Your task to perform on an android device: Show the shopping cart on amazon. Search for logitech g pro on amazon, select the first entry, add it to the cart, then select checkout. Image 0: 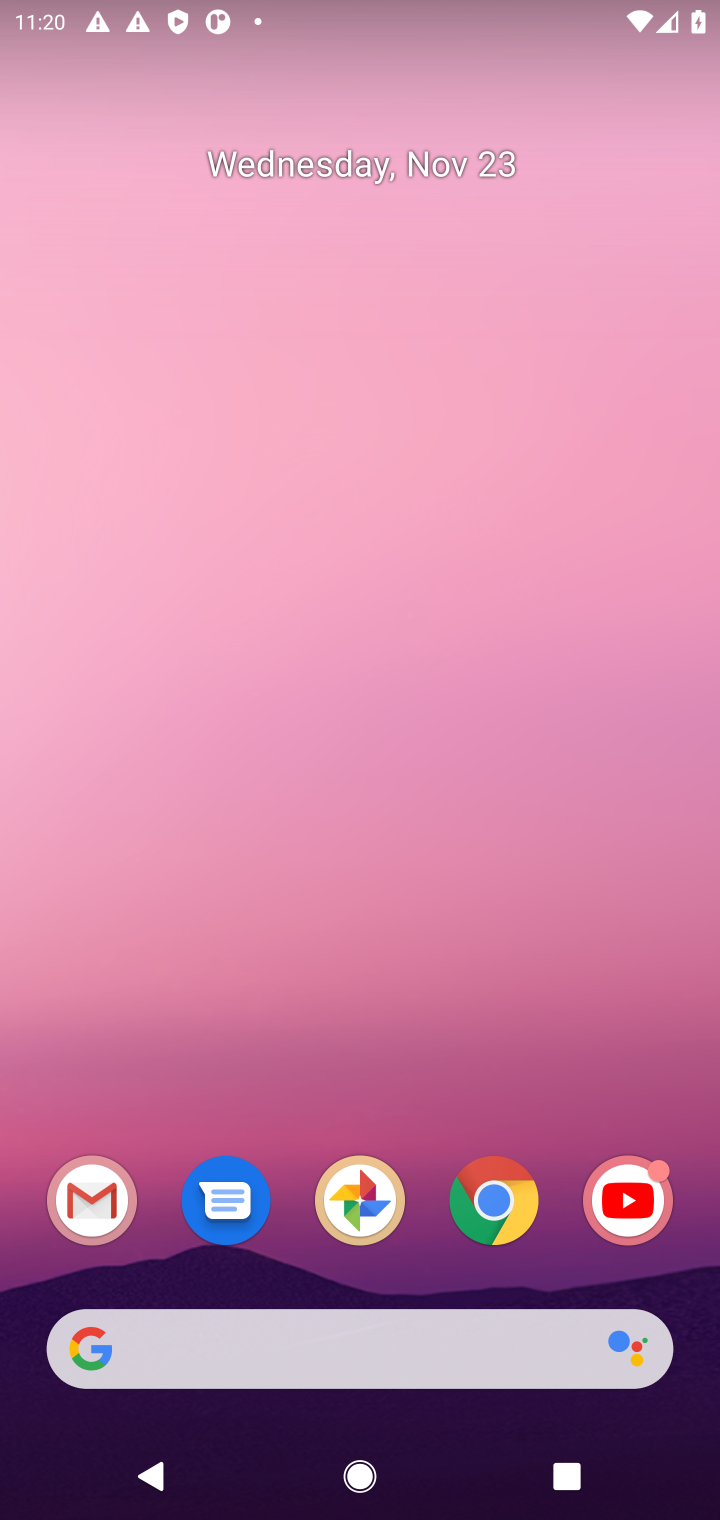
Step 0: press home button
Your task to perform on an android device: Show the shopping cart on amazon. Search for logitech g pro on amazon, select the first entry, add it to the cart, then select checkout. Image 1: 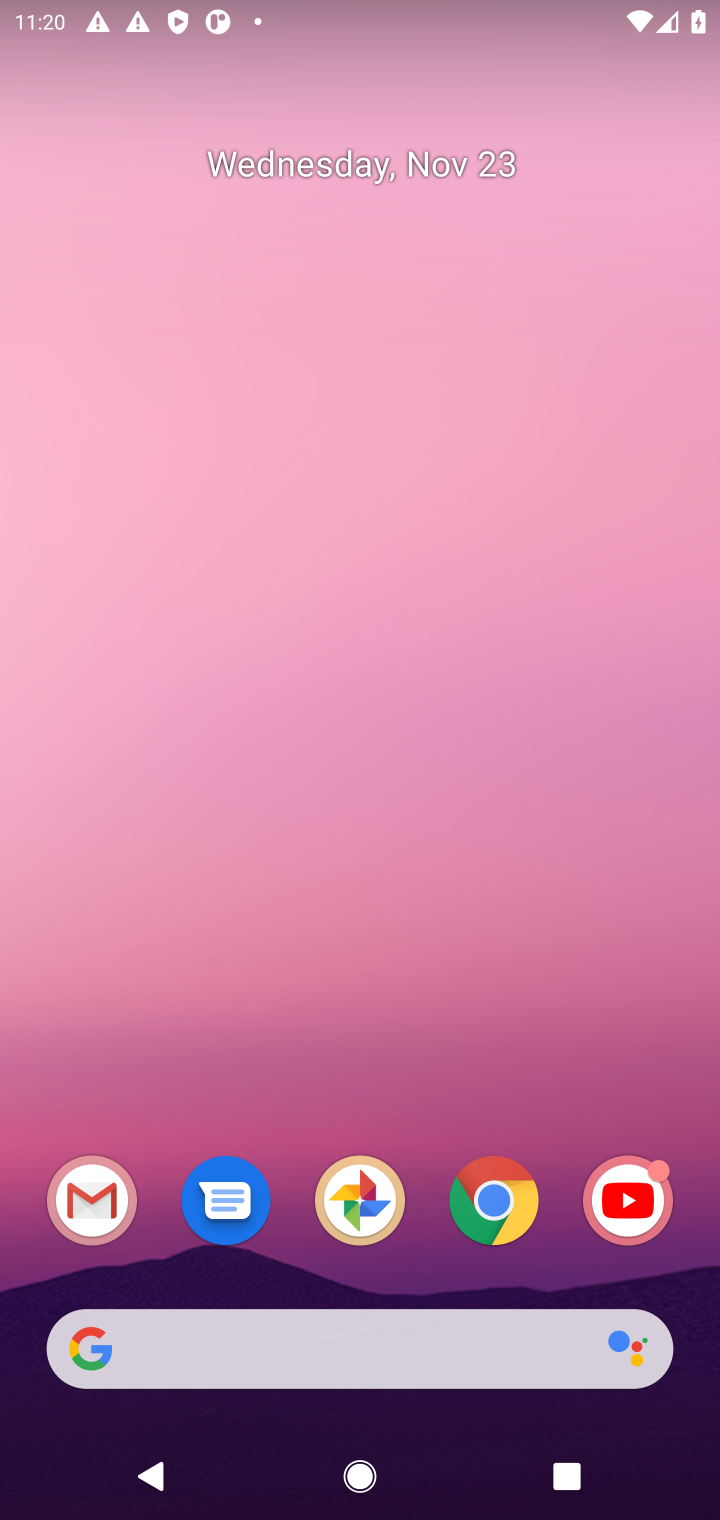
Step 1: click (373, 1370)
Your task to perform on an android device: Show the shopping cart on amazon. Search for logitech g pro on amazon, select the first entry, add it to the cart, then select checkout. Image 2: 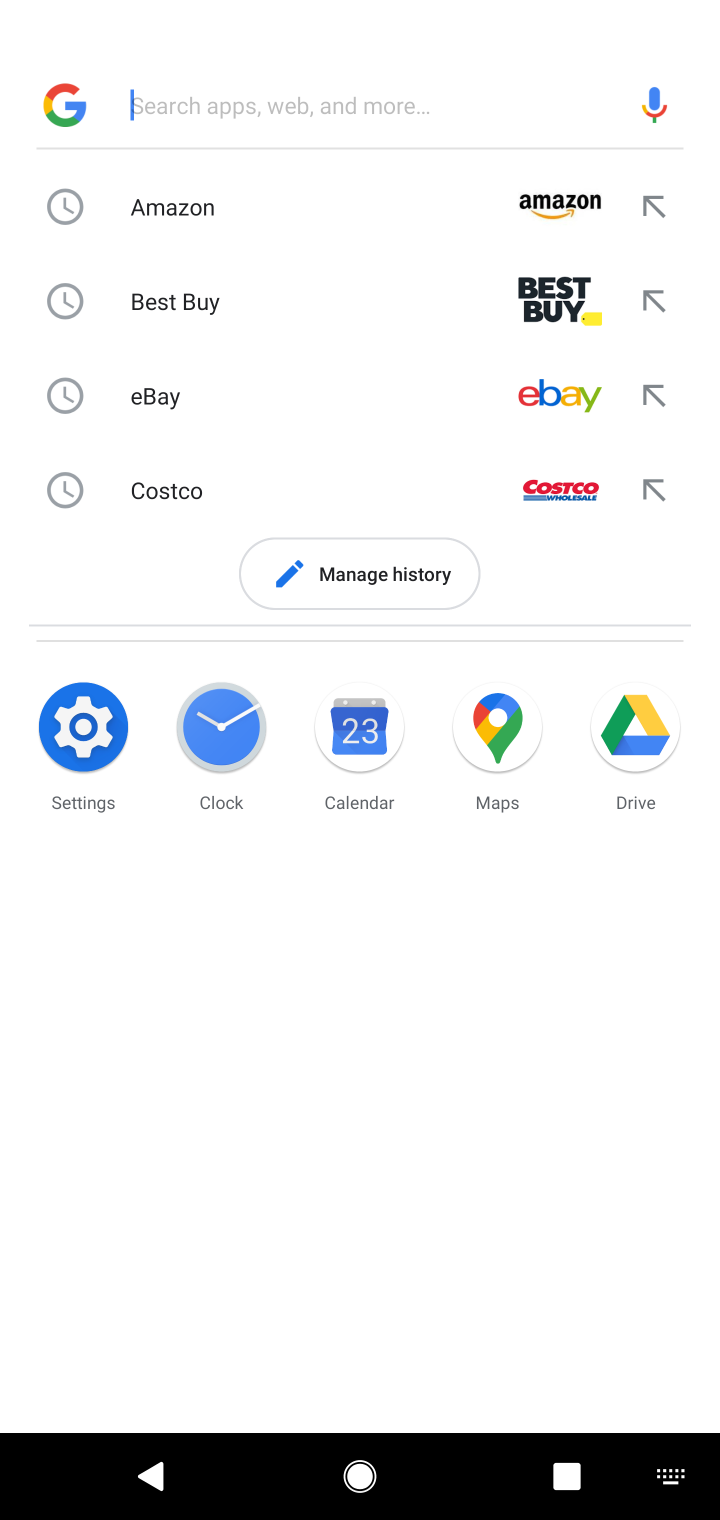
Step 2: type "amazon"
Your task to perform on an android device: Show the shopping cart on amazon. Search for logitech g pro on amazon, select the first entry, add it to the cart, then select checkout. Image 3: 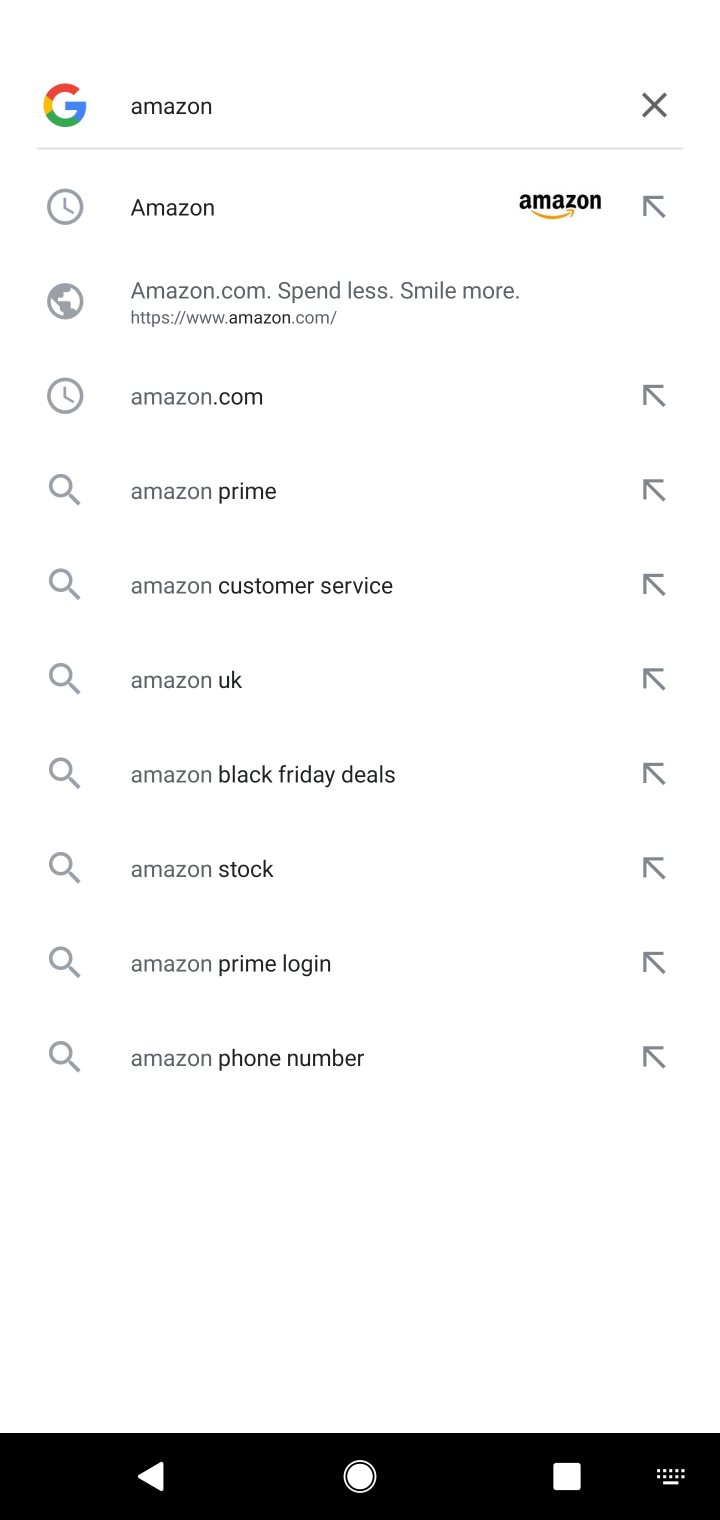
Step 3: click (243, 184)
Your task to perform on an android device: Show the shopping cart on amazon. Search for logitech g pro on amazon, select the first entry, add it to the cart, then select checkout. Image 4: 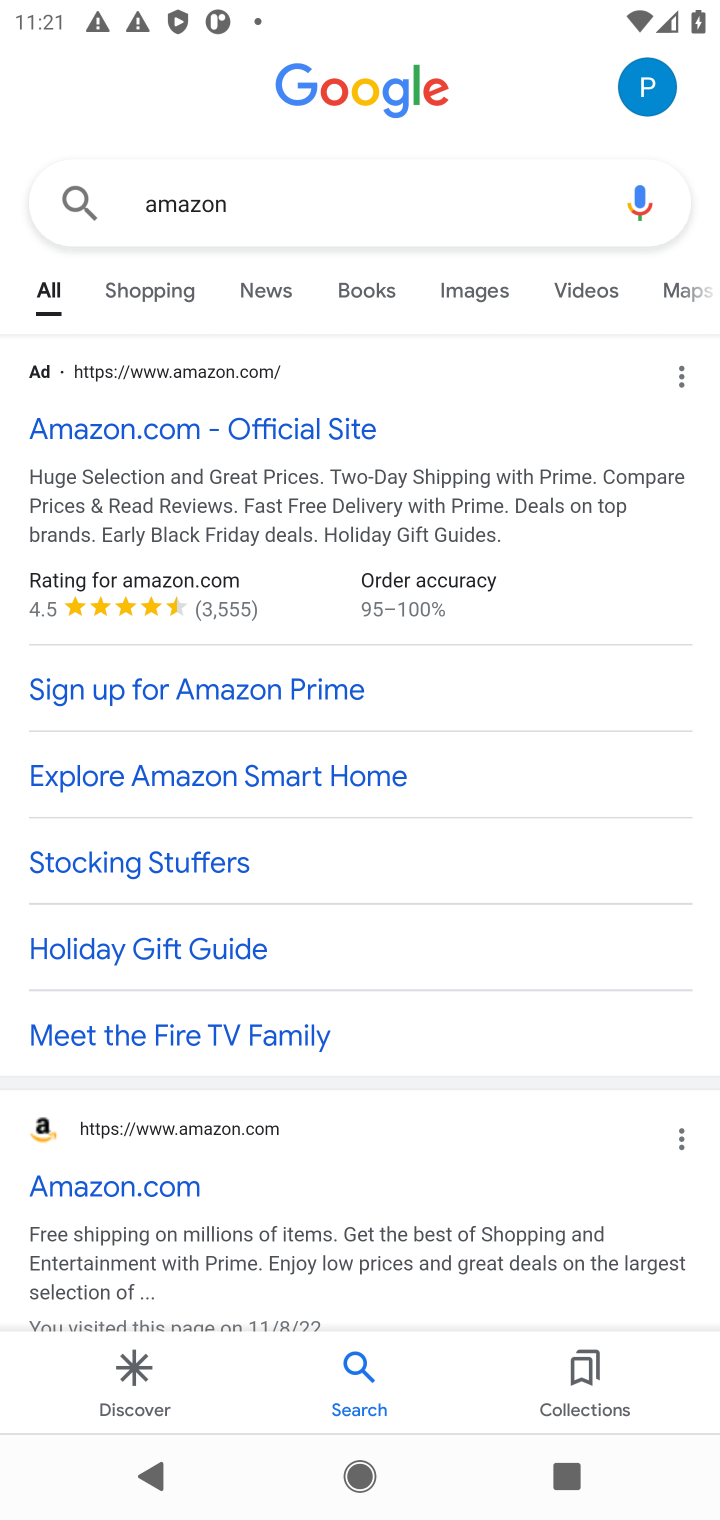
Step 4: click (303, 418)
Your task to perform on an android device: Show the shopping cart on amazon. Search for logitech g pro on amazon, select the first entry, add it to the cart, then select checkout. Image 5: 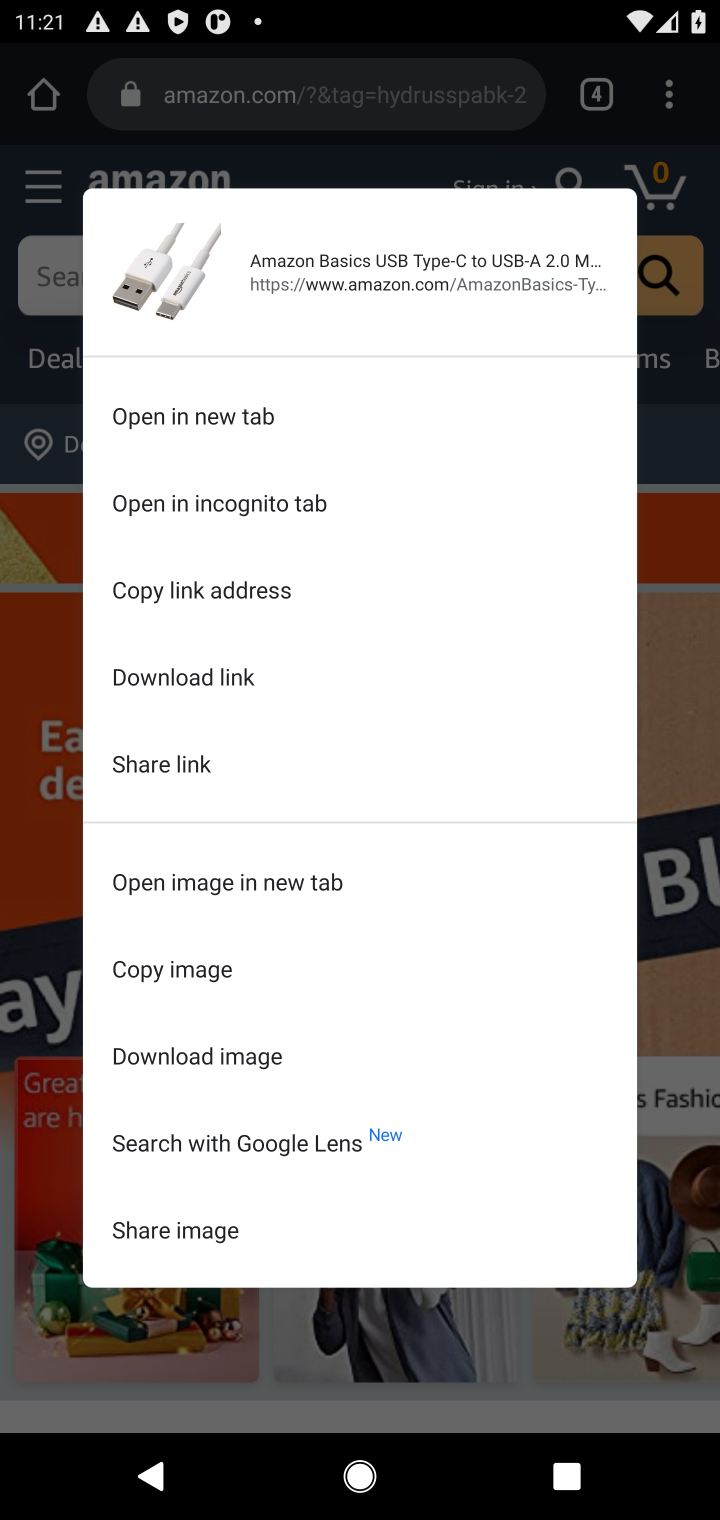
Step 5: click (308, 1345)
Your task to perform on an android device: Show the shopping cart on amazon. Search for logitech g pro on amazon, select the first entry, add it to the cart, then select checkout. Image 6: 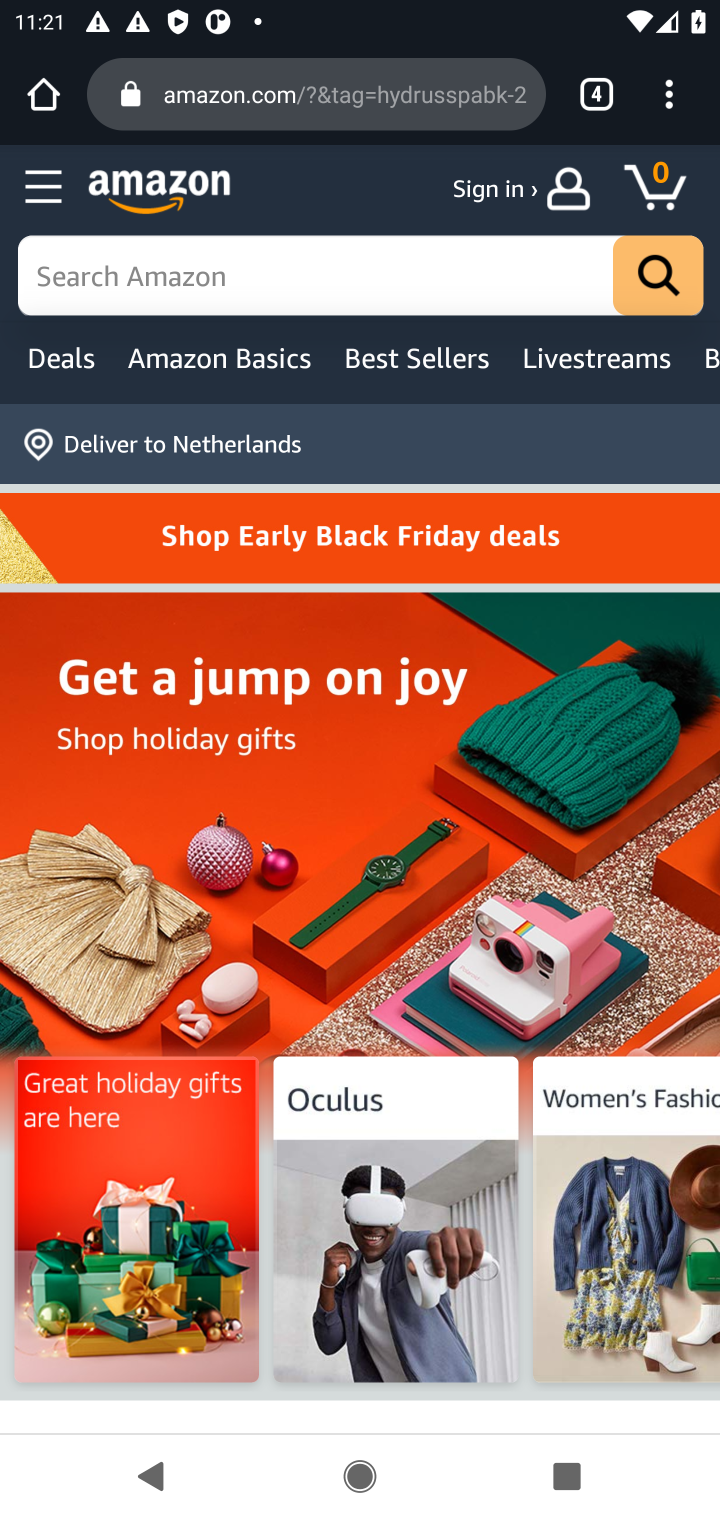
Step 6: click (345, 261)
Your task to perform on an android device: Show the shopping cart on amazon. Search for logitech g pro on amazon, select the first entry, add it to the cart, then select checkout. Image 7: 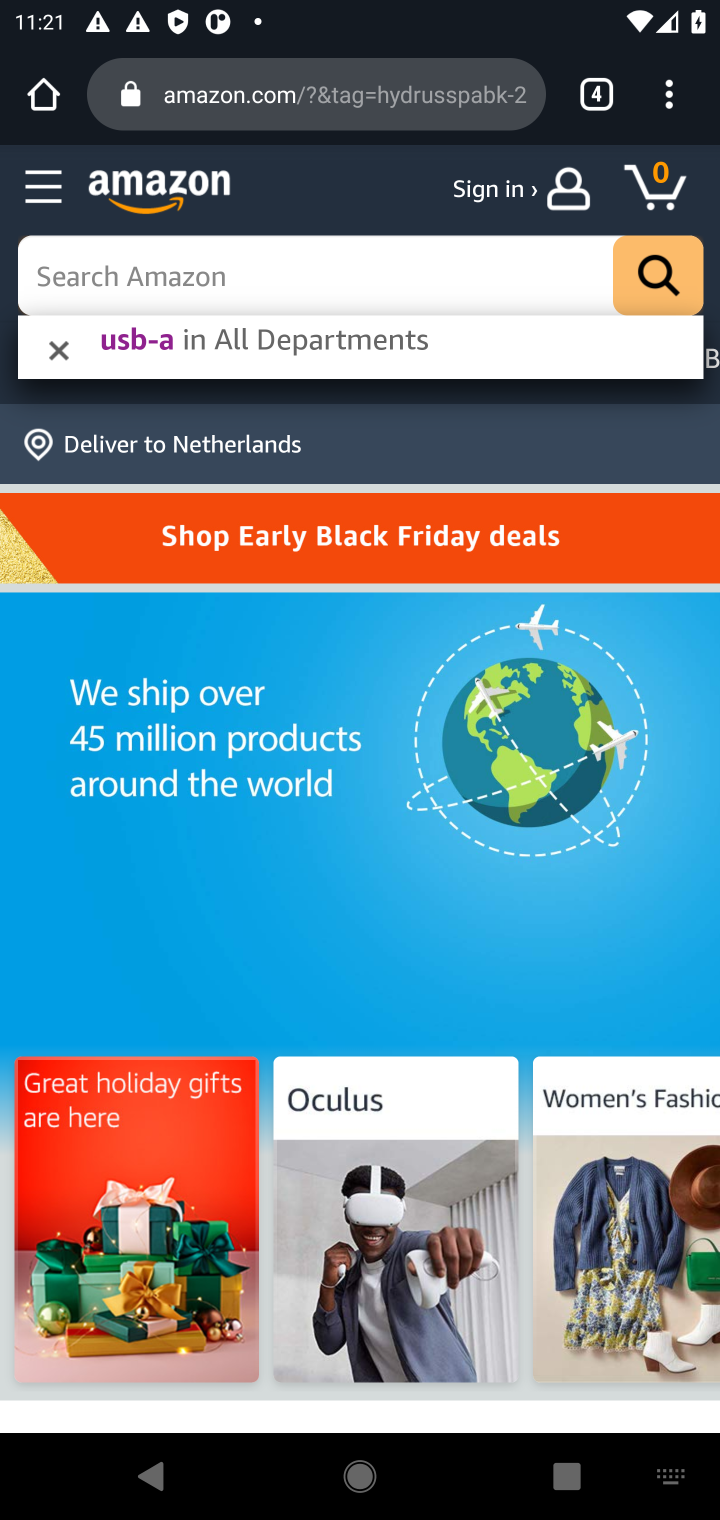
Step 7: type "logitech gpro"
Your task to perform on an android device: Show the shopping cart on amazon. Search for logitech g pro on amazon, select the first entry, add it to the cart, then select checkout. Image 8: 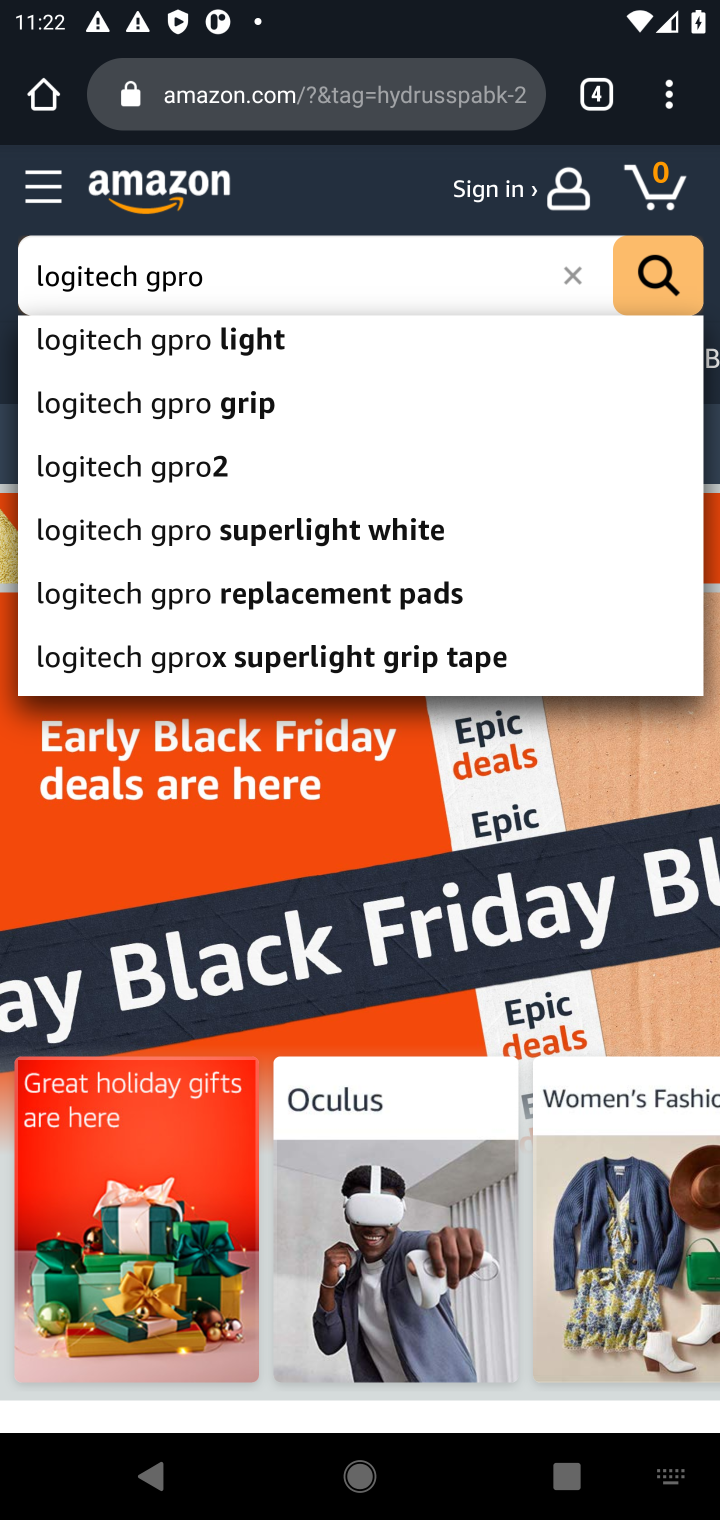
Step 8: click (255, 354)
Your task to perform on an android device: Show the shopping cart on amazon. Search for logitech g pro on amazon, select the first entry, add it to the cart, then select checkout. Image 9: 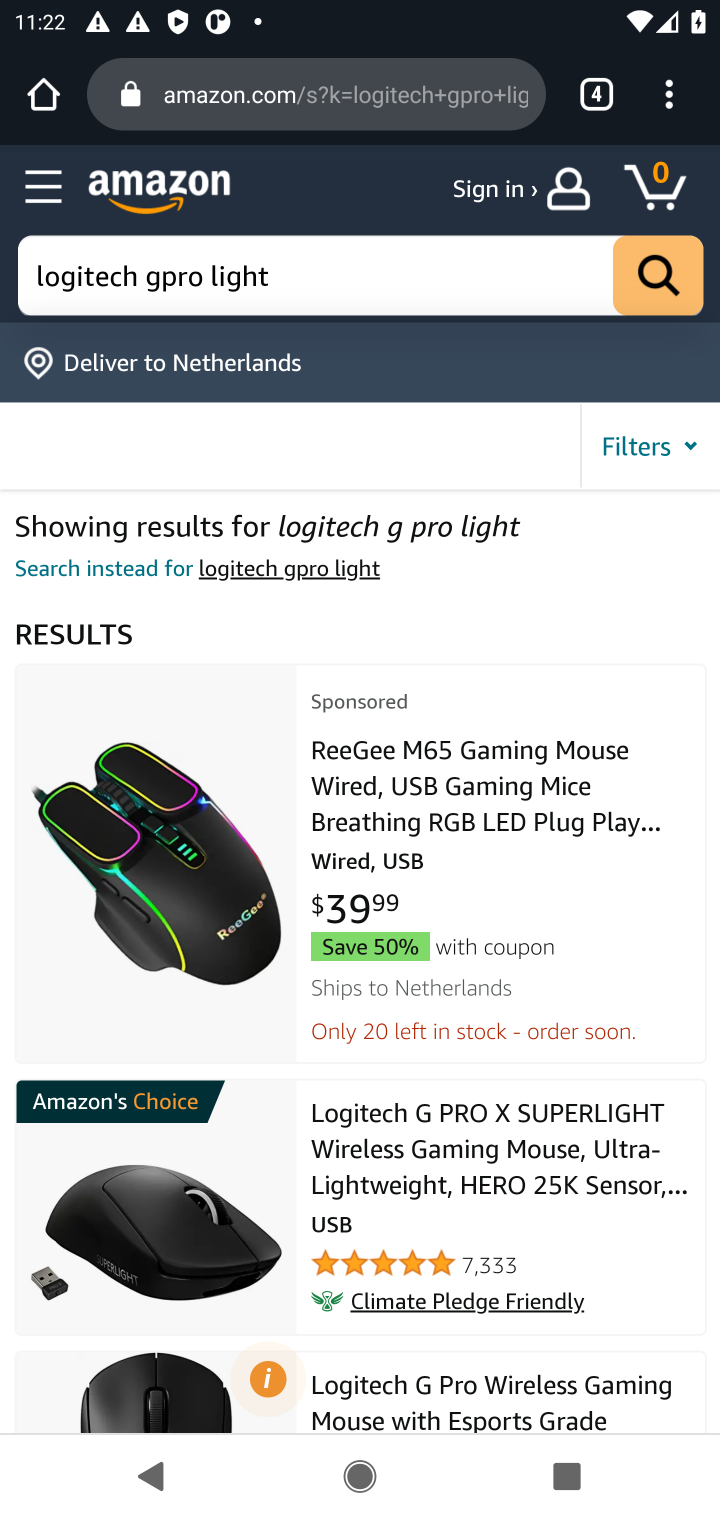
Step 9: click (433, 820)
Your task to perform on an android device: Show the shopping cart on amazon. Search for logitech g pro on amazon, select the first entry, add it to the cart, then select checkout. Image 10: 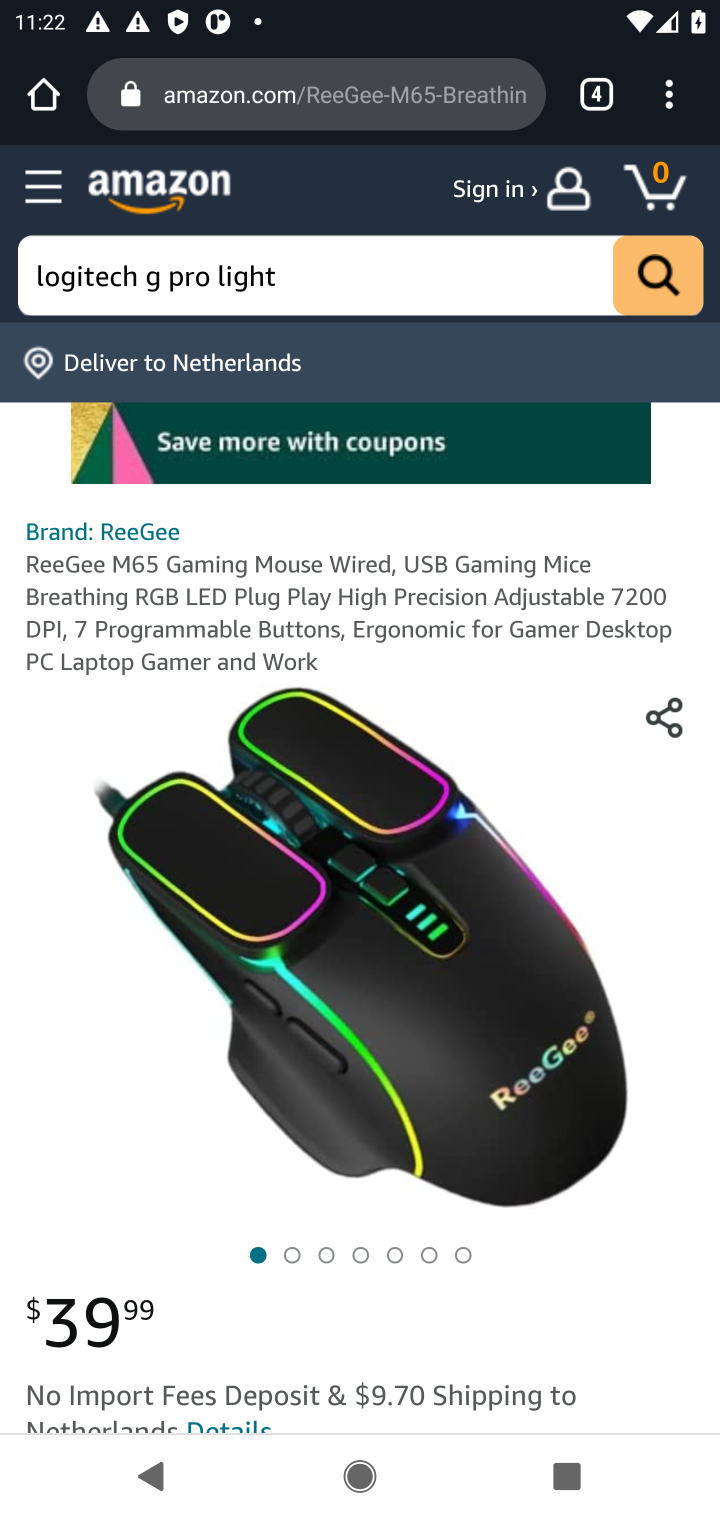
Step 10: drag from (314, 1103) to (614, 366)
Your task to perform on an android device: Show the shopping cart on amazon. Search for logitech g pro on amazon, select the first entry, add it to the cart, then select checkout. Image 11: 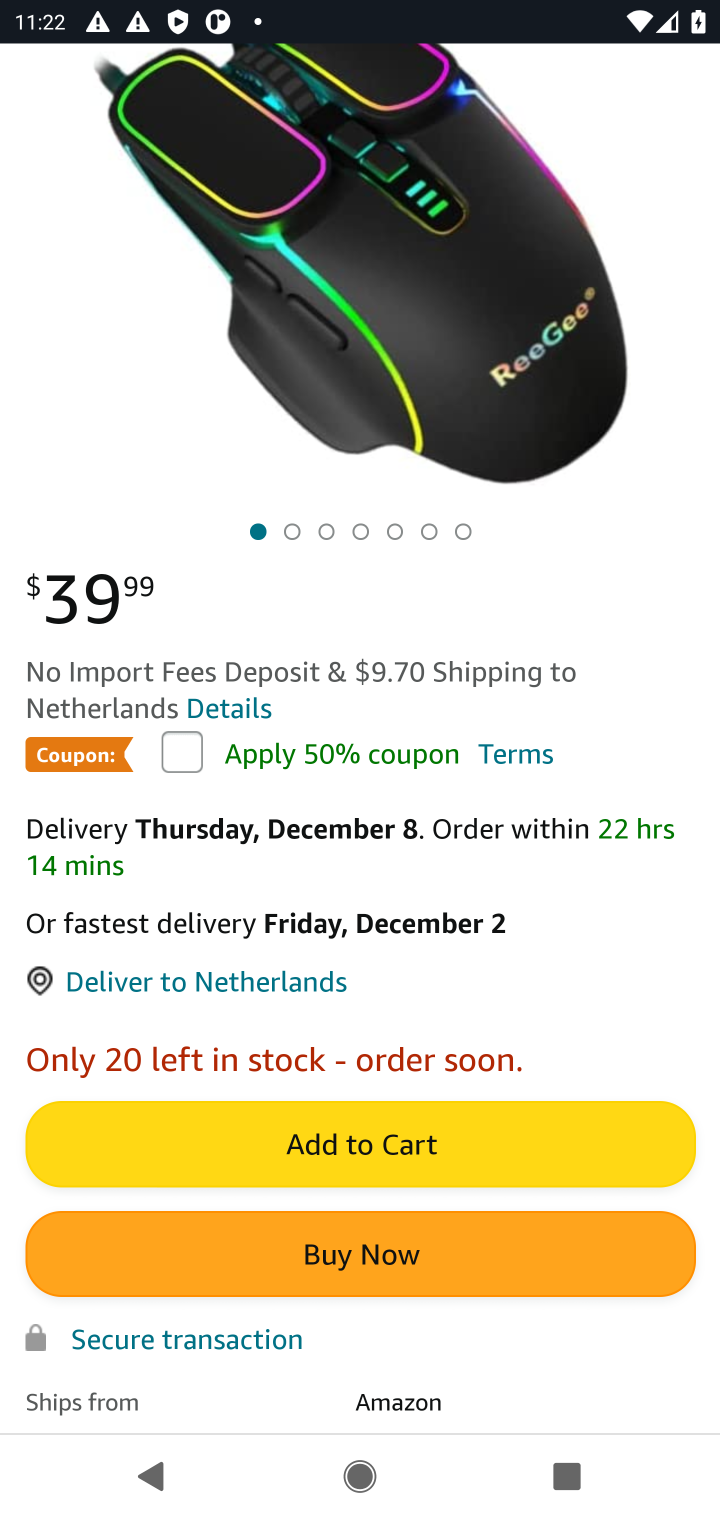
Step 11: click (475, 1148)
Your task to perform on an android device: Show the shopping cart on amazon. Search for logitech g pro on amazon, select the first entry, add it to the cart, then select checkout. Image 12: 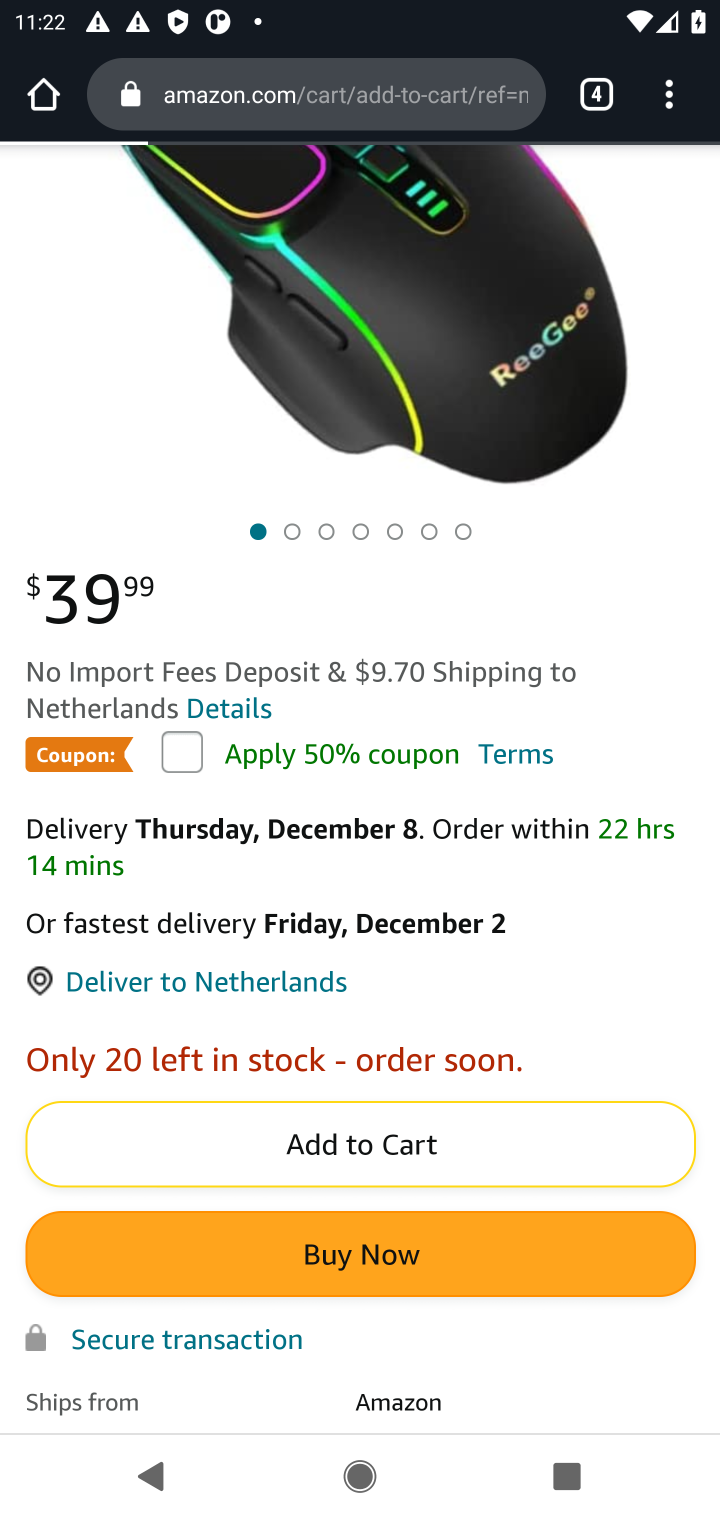
Step 12: task complete